Your task to perform on an android device: show emergency info Image 0: 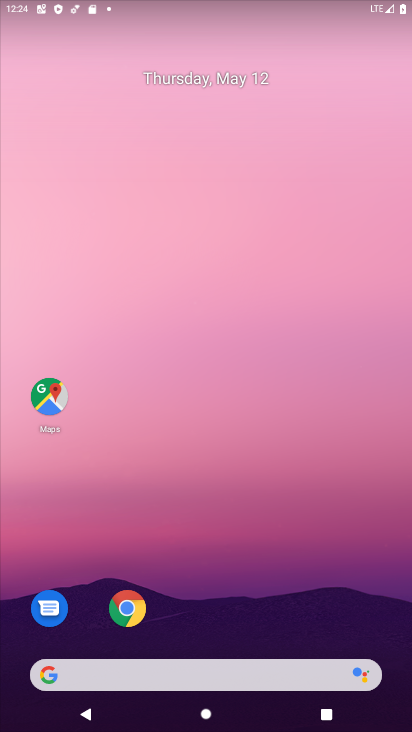
Step 0: drag from (270, 630) to (312, 10)
Your task to perform on an android device: show emergency info Image 1: 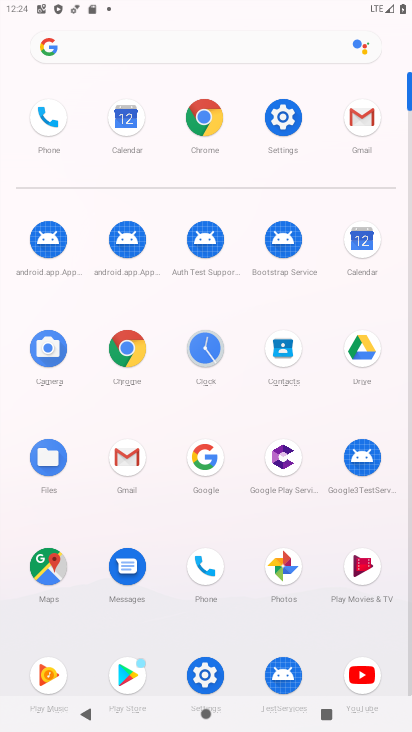
Step 1: click (287, 142)
Your task to perform on an android device: show emergency info Image 2: 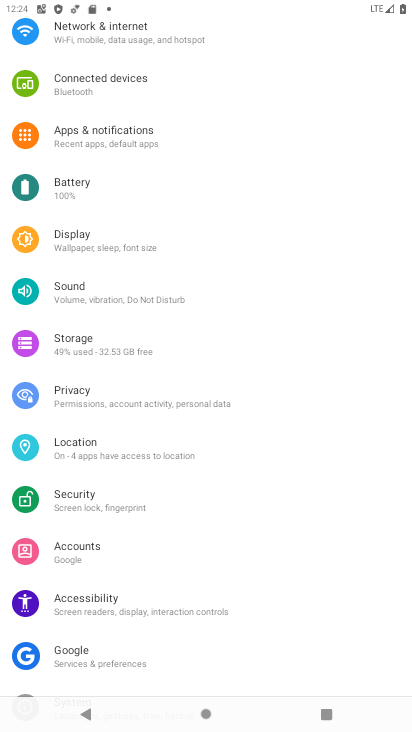
Step 2: drag from (328, 638) to (323, 84)
Your task to perform on an android device: show emergency info Image 3: 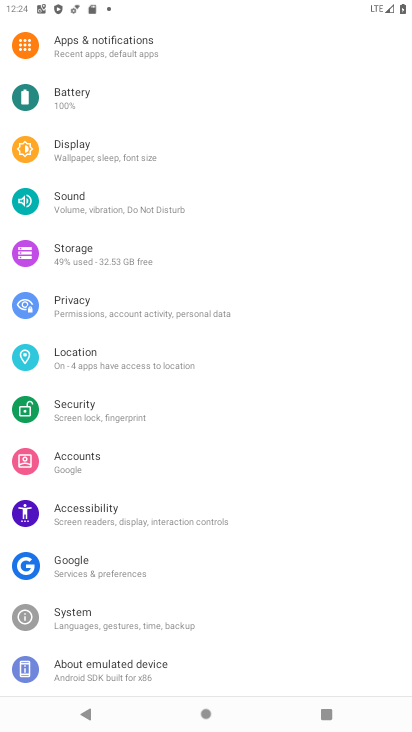
Step 3: click (108, 671)
Your task to perform on an android device: show emergency info Image 4: 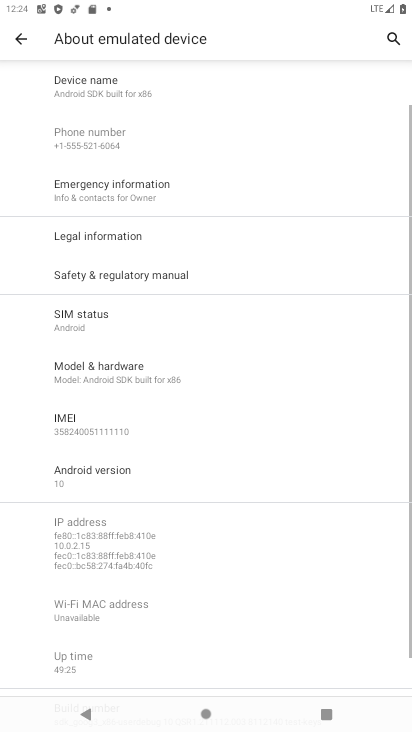
Step 4: click (114, 207)
Your task to perform on an android device: show emergency info Image 5: 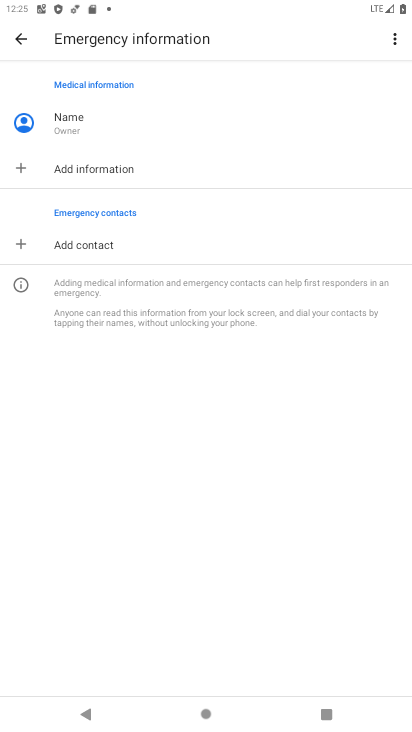
Step 5: task complete